Your task to perform on an android device: Open wifi settings Image 0: 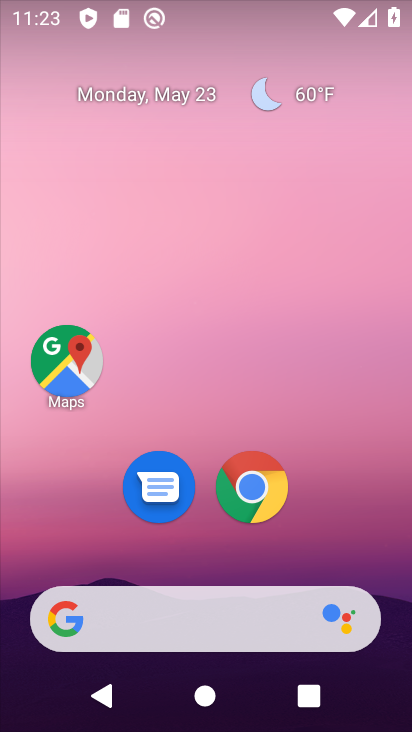
Step 0: drag from (149, 585) to (343, 102)
Your task to perform on an android device: Open wifi settings Image 1: 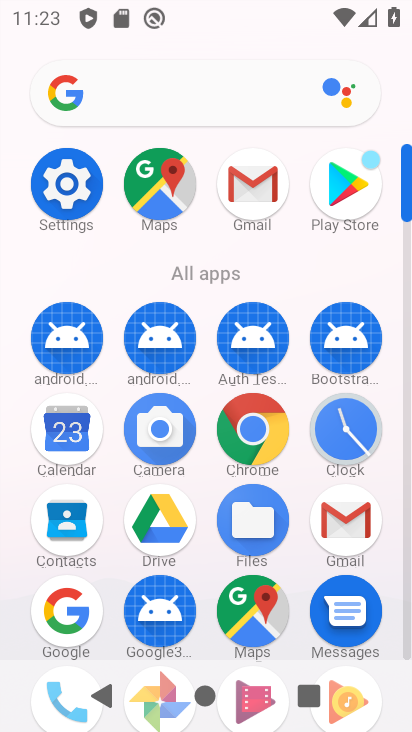
Step 1: drag from (180, 591) to (293, 313)
Your task to perform on an android device: Open wifi settings Image 2: 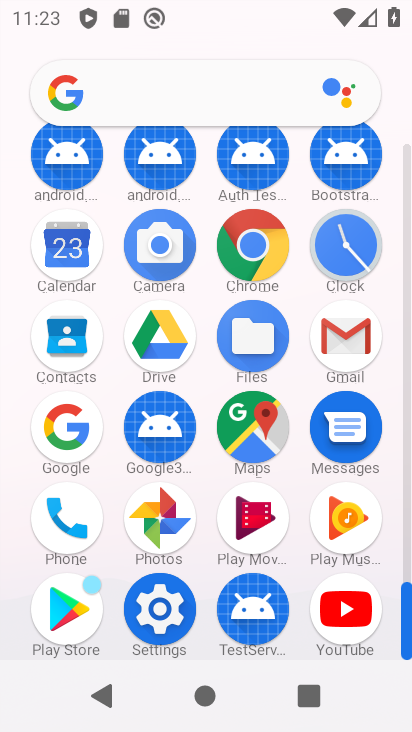
Step 2: click (165, 612)
Your task to perform on an android device: Open wifi settings Image 3: 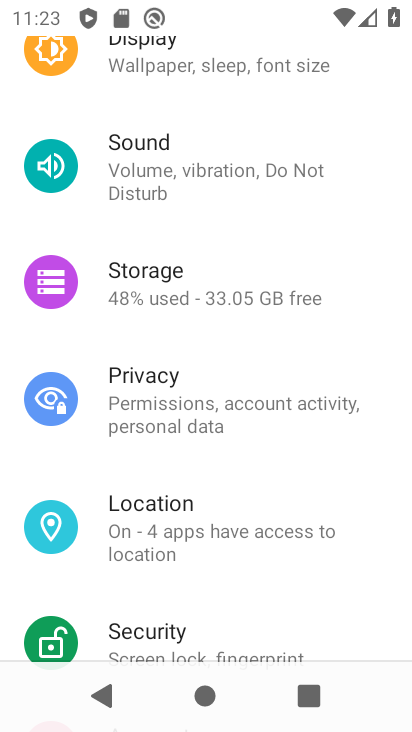
Step 3: drag from (182, 152) to (190, 723)
Your task to perform on an android device: Open wifi settings Image 4: 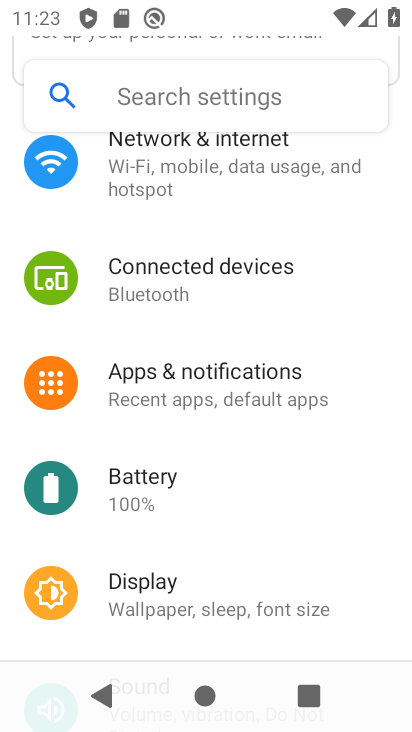
Step 4: click (224, 190)
Your task to perform on an android device: Open wifi settings Image 5: 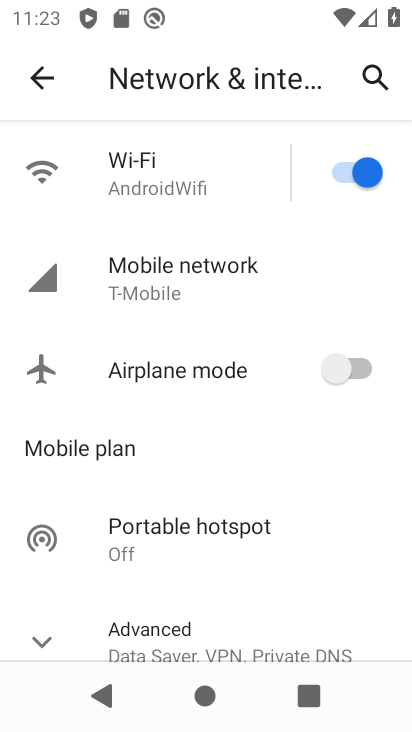
Step 5: click (180, 181)
Your task to perform on an android device: Open wifi settings Image 6: 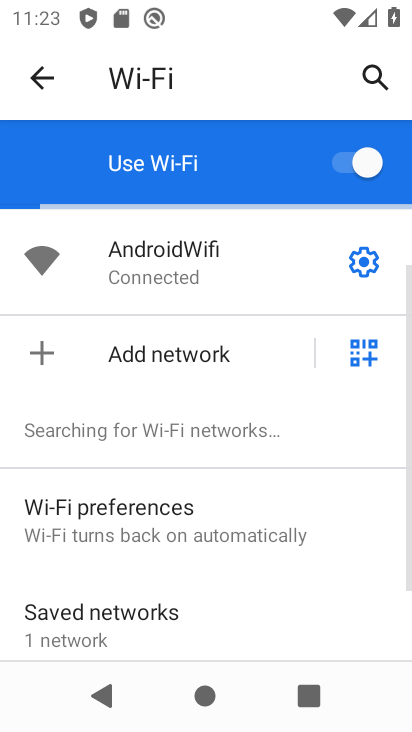
Step 6: task complete